Your task to perform on an android device: Show me the alarms in the clock app Image 0: 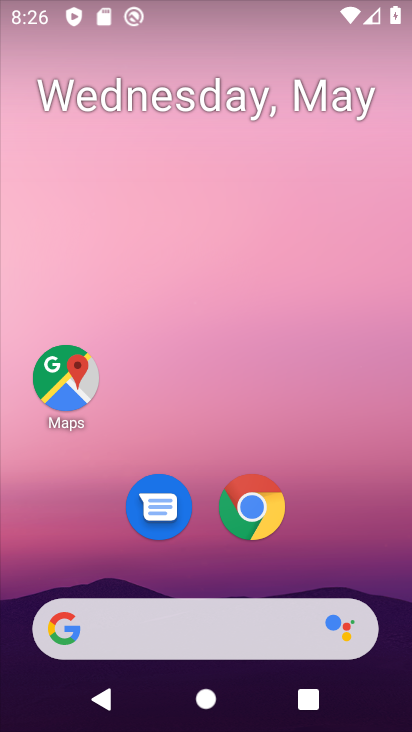
Step 0: drag from (375, 539) to (322, 178)
Your task to perform on an android device: Show me the alarms in the clock app Image 1: 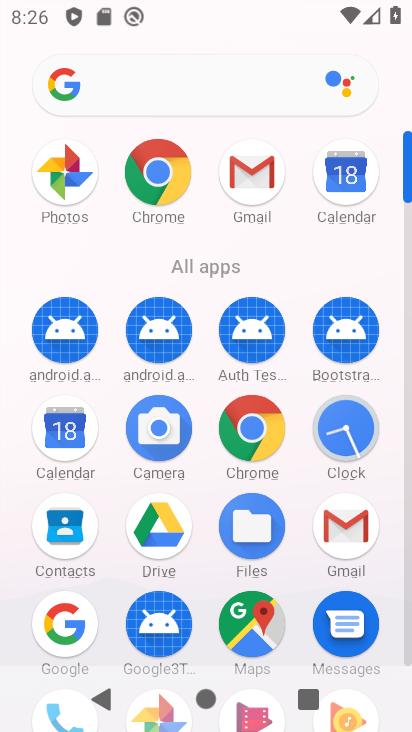
Step 1: click (404, 663)
Your task to perform on an android device: Show me the alarms in the clock app Image 2: 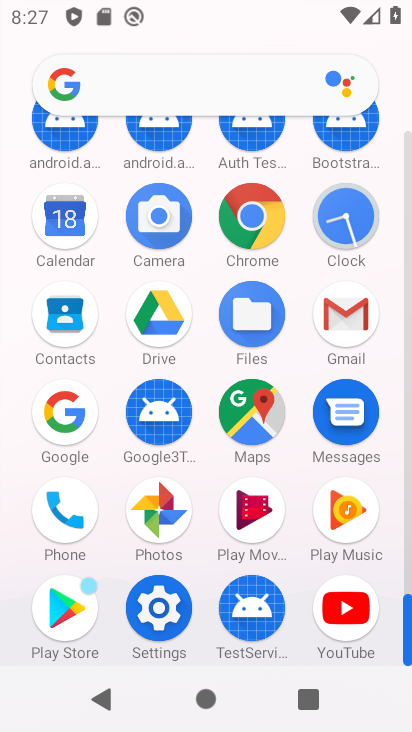
Step 2: click (359, 226)
Your task to perform on an android device: Show me the alarms in the clock app Image 3: 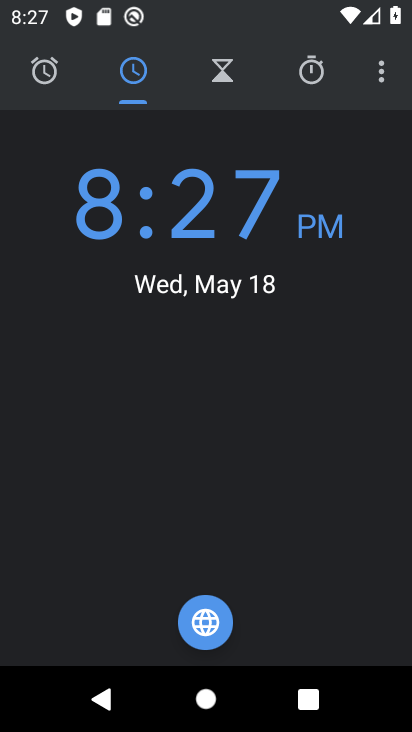
Step 3: click (51, 58)
Your task to perform on an android device: Show me the alarms in the clock app Image 4: 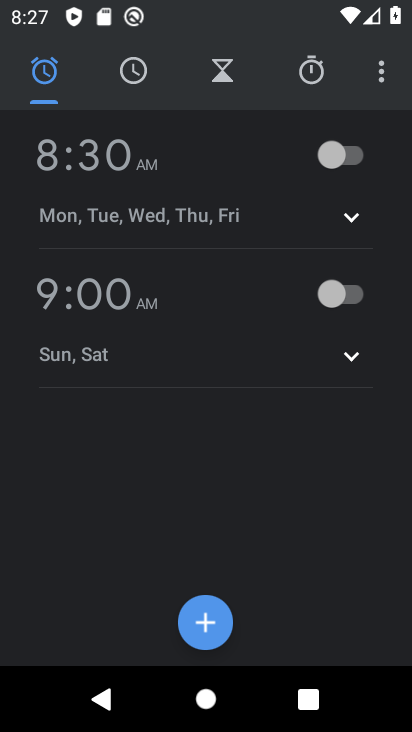
Step 4: task complete